Your task to perform on an android device: Go to sound settings Image 0: 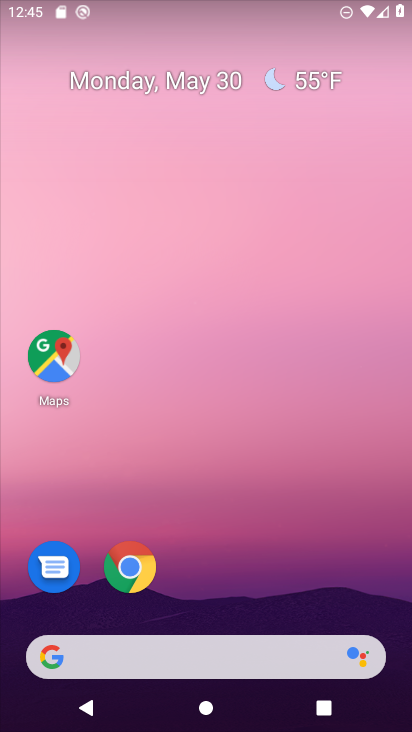
Step 0: press home button
Your task to perform on an android device: Go to sound settings Image 1: 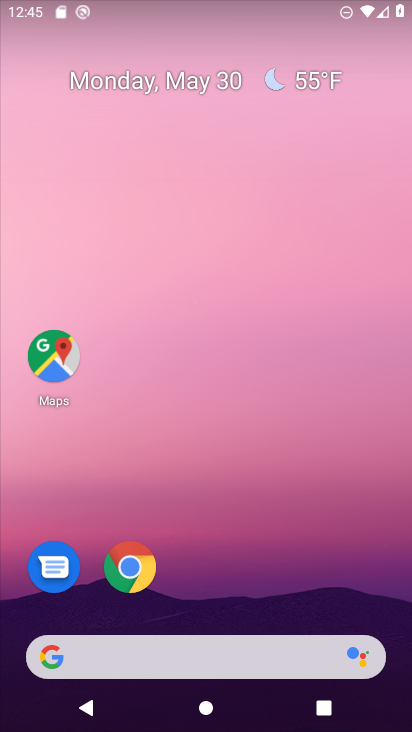
Step 1: drag from (234, 357) to (237, 148)
Your task to perform on an android device: Go to sound settings Image 2: 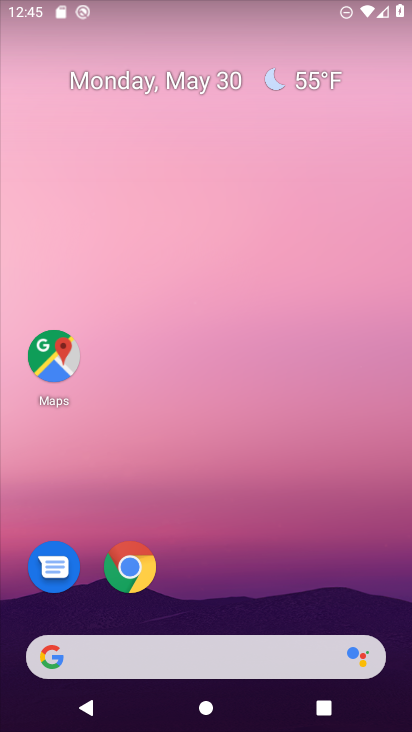
Step 2: drag from (222, 601) to (253, 62)
Your task to perform on an android device: Go to sound settings Image 3: 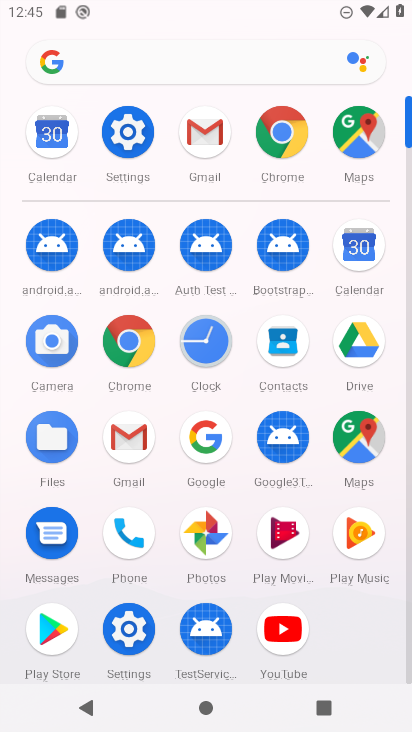
Step 3: click (125, 134)
Your task to perform on an android device: Go to sound settings Image 4: 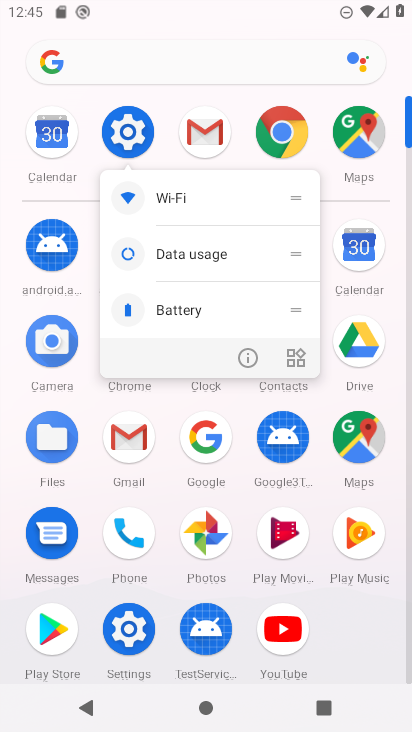
Step 4: click (125, 134)
Your task to perform on an android device: Go to sound settings Image 5: 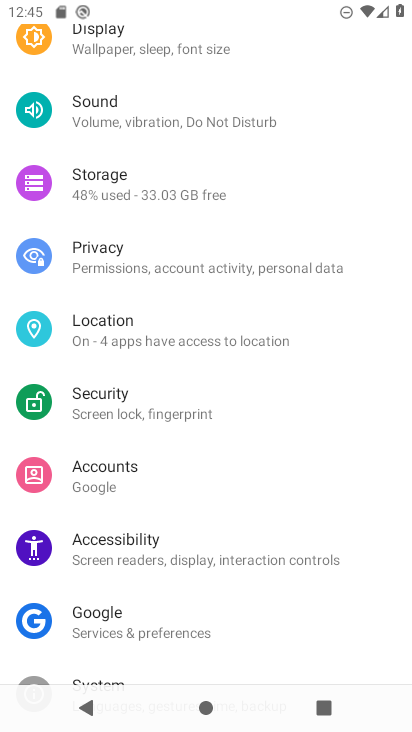
Step 5: click (134, 101)
Your task to perform on an android device: Go to sound settings Image 6: 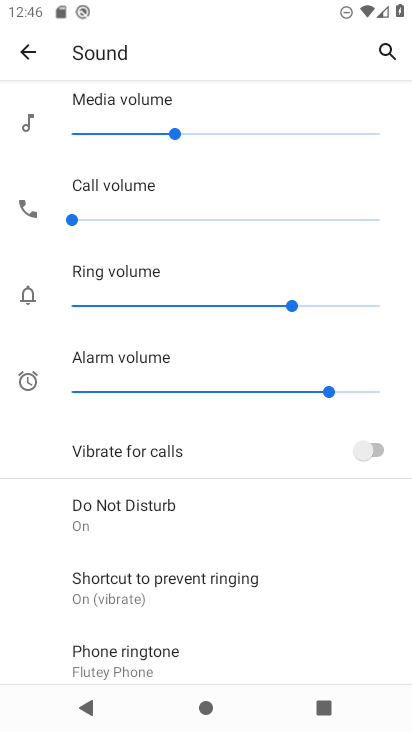
Step 6: drag from (187, 629) to (200, 169)
Your task to perform on an android device: Go to sound settings Image 7: 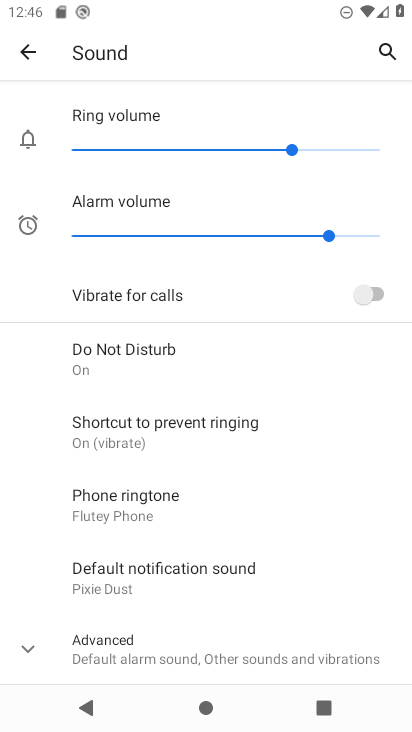
Step 7: click (34, 643)
Your task to perform on an android device: Go to sound settings Image 8: 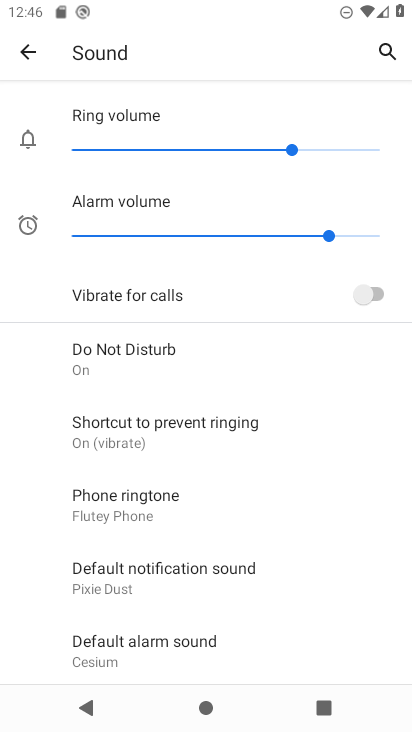
Step 8: task complete